Your task to perform on an android device: turn pop-ups off in chrome Image 0: 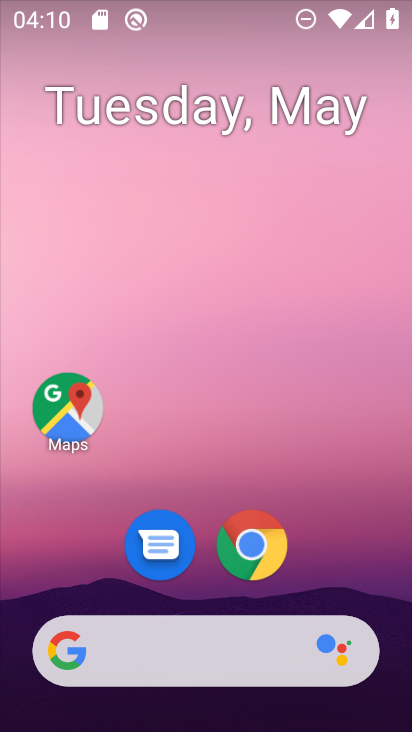
Step 0: click (250, 548)
Your task to perform on an android device: turn pop-ups off in chrome Image 1: 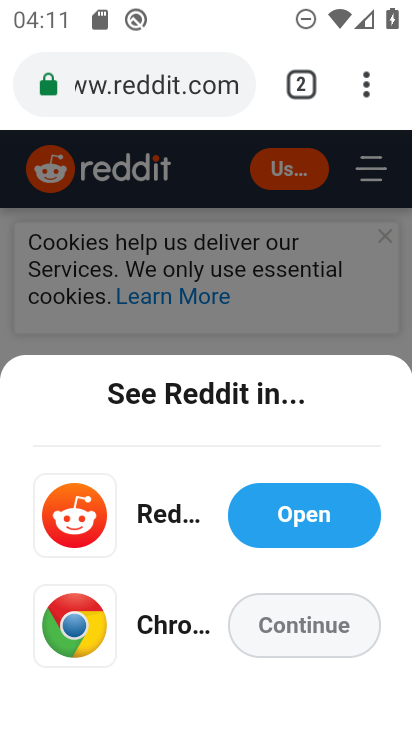
Step 1: click (363, 87)
Your task to perform on an android device: turn pop-ups off in chrome Image 2: 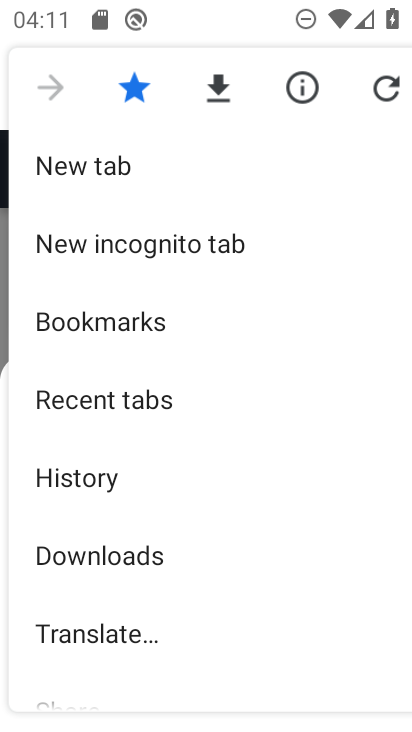
Step 2: drag from (193, 547) to (278, 179)
Your task to perform on an android device: turn pop-ups off in chrome Image 3: 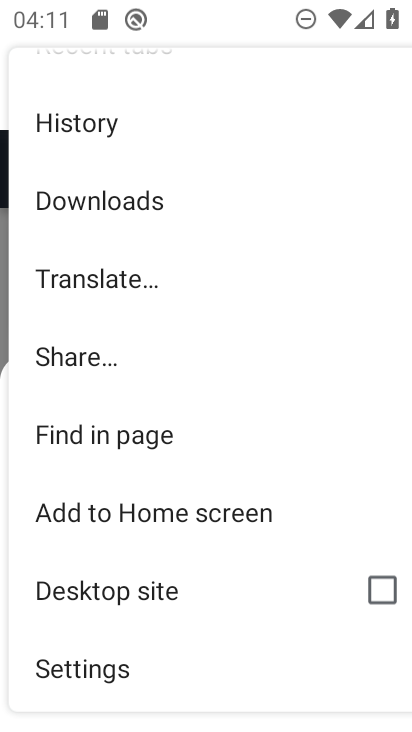
Step 3: drag from (256, 620) to (251, 288)
Your task to perform on an android device: turn pop-ups off in chrome Image 4: 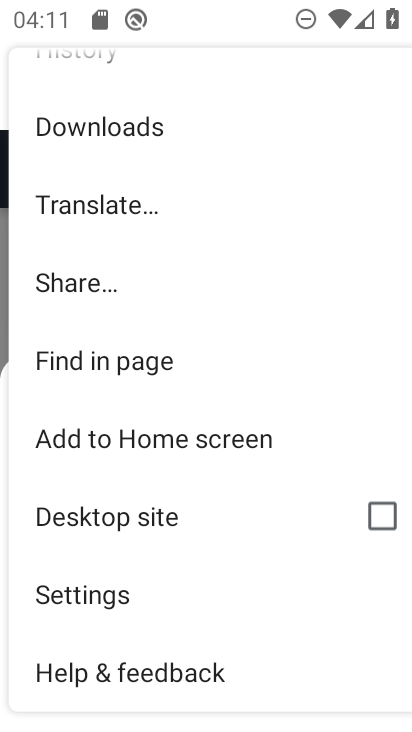
Step 4: click (80, 594)
Your task to perform on an android device: turn pop-ups off in chrome Image 5: 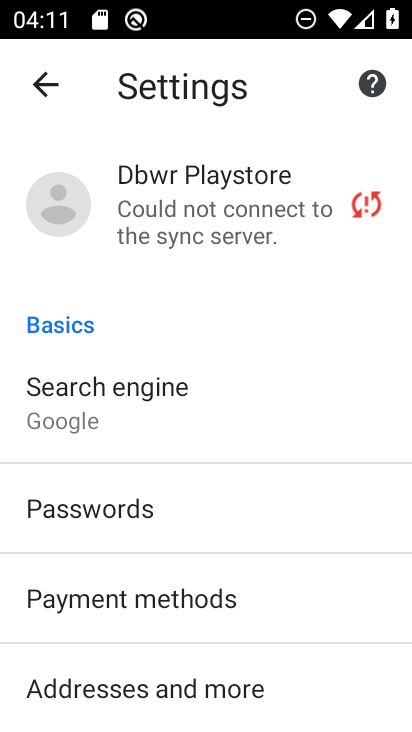
Step 5: drag from (266, 652) to (245, 177)
Your task to perform on an android device: turn pop-ups off in chrome Image 6: 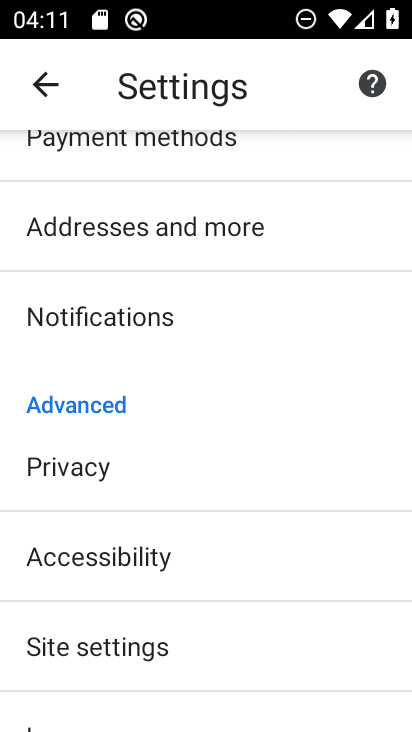
Step 6: drag from (198, 589) to (269, 179)
Your task to perform on an android device: turn pop-ups off in chrome Image 7: 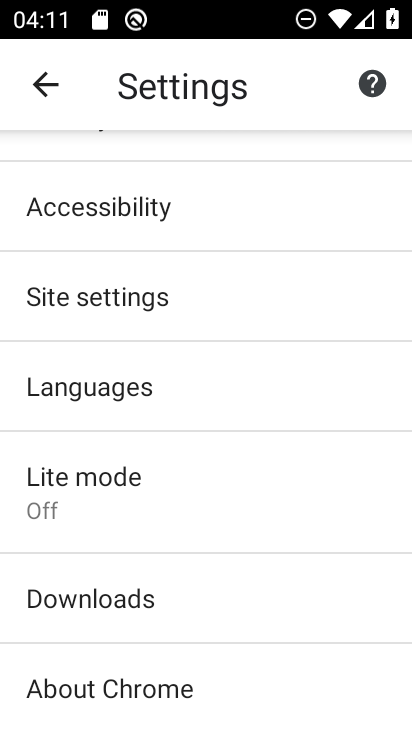
Step 7: click (98, 291)
Your task to perform on an android device: turn pop-ups off in chrome Image 8: 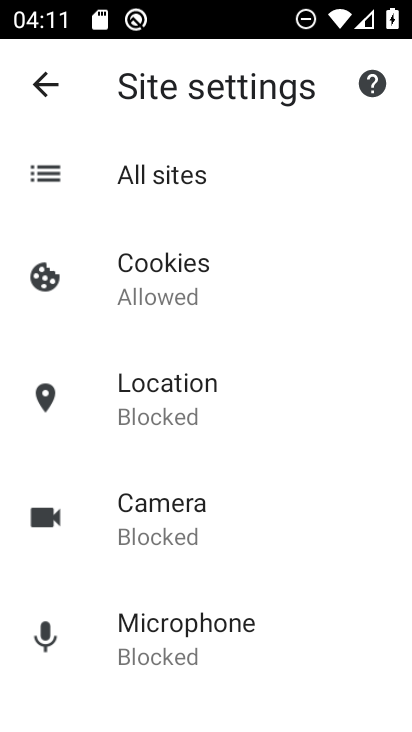
Step 8: drag from (274, 623) to (252, 197)
Your task to perform on an android device: turn pop-ups off in chrome Image 9: 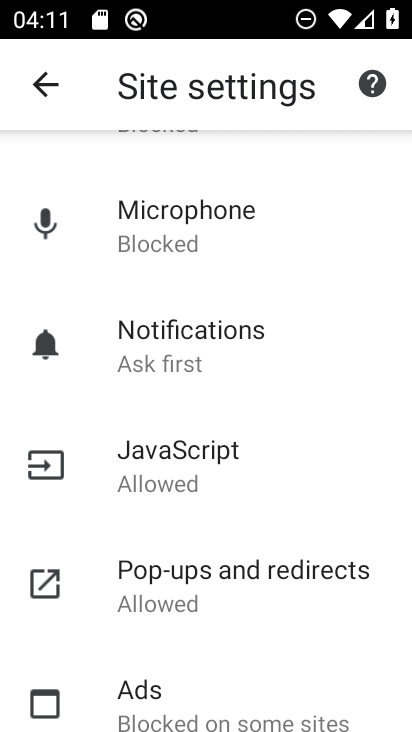
Step 9: click (174, 591)
Your task to perform on an android device: turn pop-ups off in chrome Image 10: 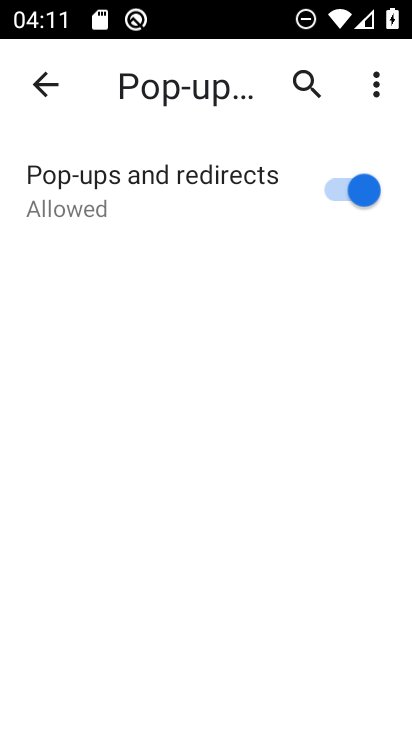
Step 10: click (341, 187)
Your task to perform on an android device: turn pop-ups off in chrome Image 11: 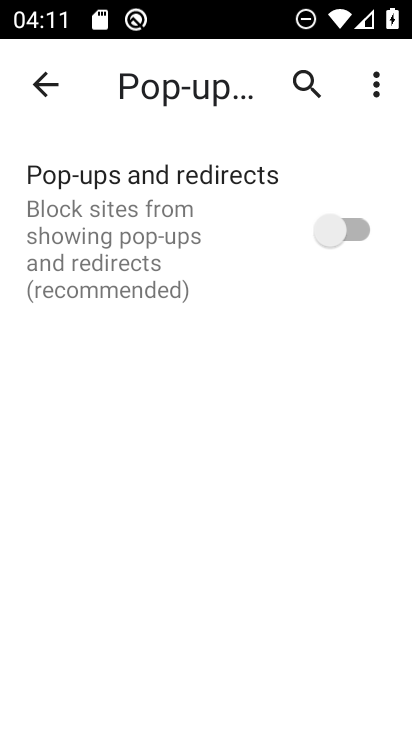
Step 11: task complete